Your task to perform on an android device: Open Google Image 0: 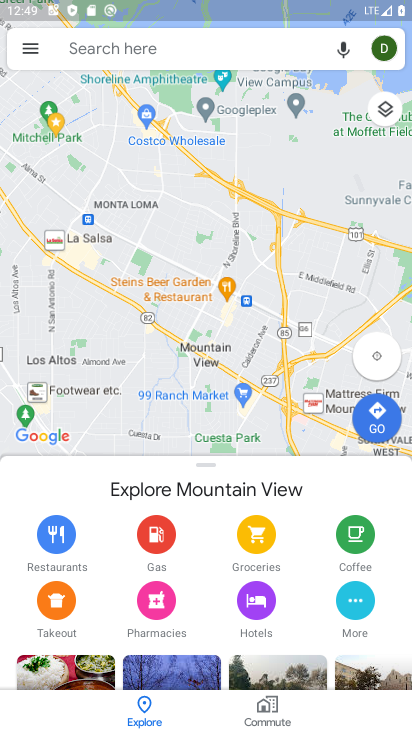
Step 0: press home button
Your task to perform on an android device: Open Google Image 1: 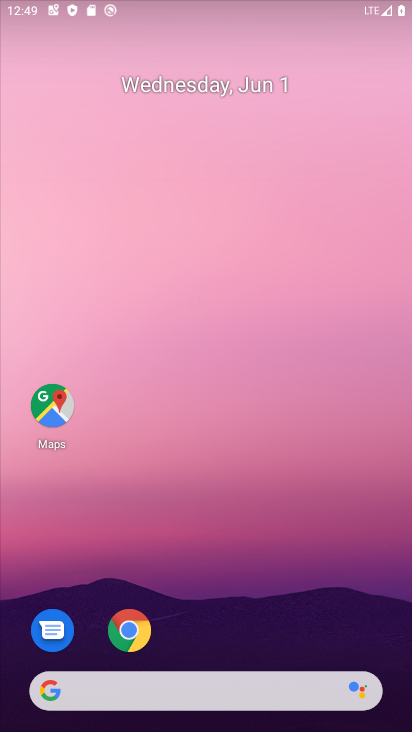
Step 1: drag from (224, 530) to (210, 18)
Your task to perform on an android device: Open Google Image 2: 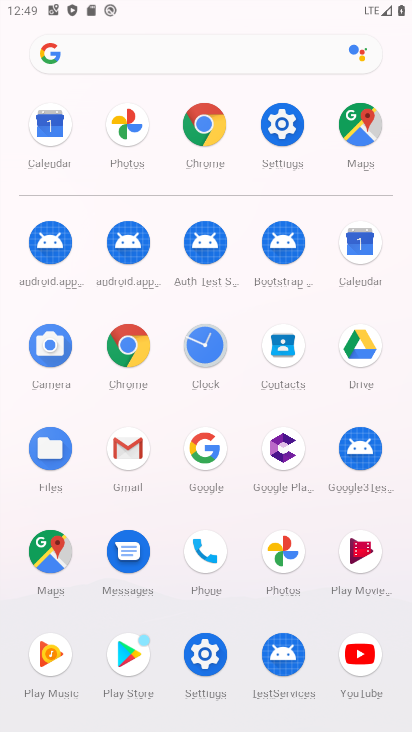
Step 2: click (198, 449)
Your task to perform on an android device: Open Google Image 3: 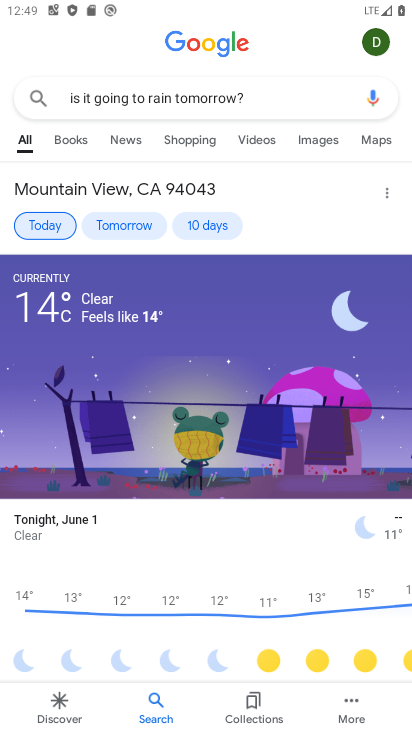
Step 3: click (313, 106)
Your task to perform on an android device: Open Google Image 4: 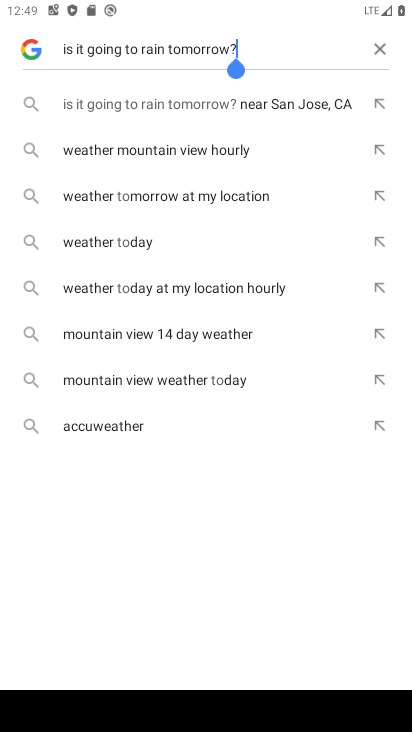
Step 4: click (379, 46)
Your task to perform on an android device: Open Google Image 5: 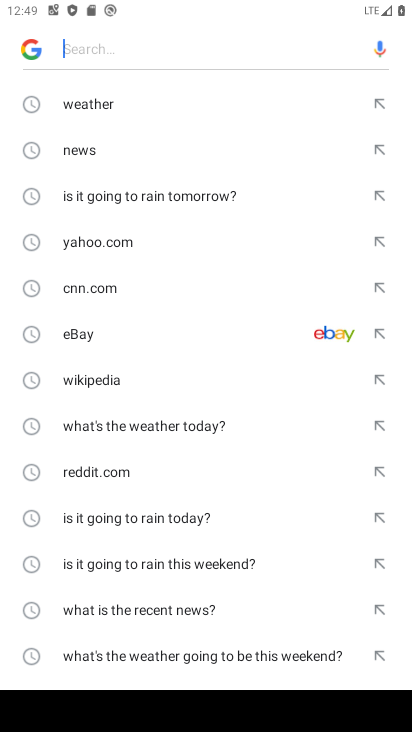
Step 5: click (28, 48)
Your task to perform on an android device: Open Google Image 6: 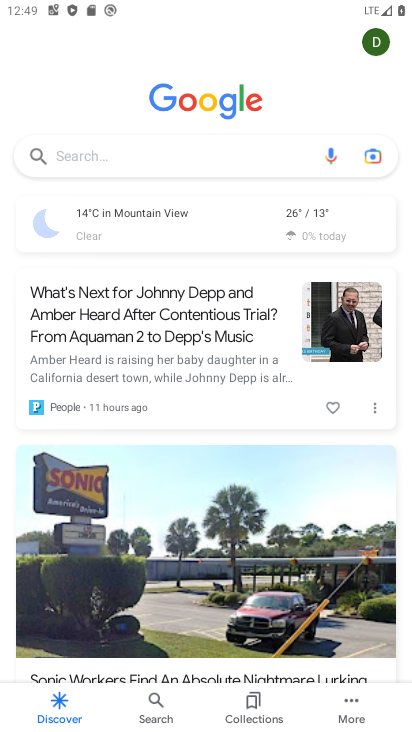
Step 6: task complete